Your task to perform on an android device: open app "McDonald's" (install if not already installed) Image 0: 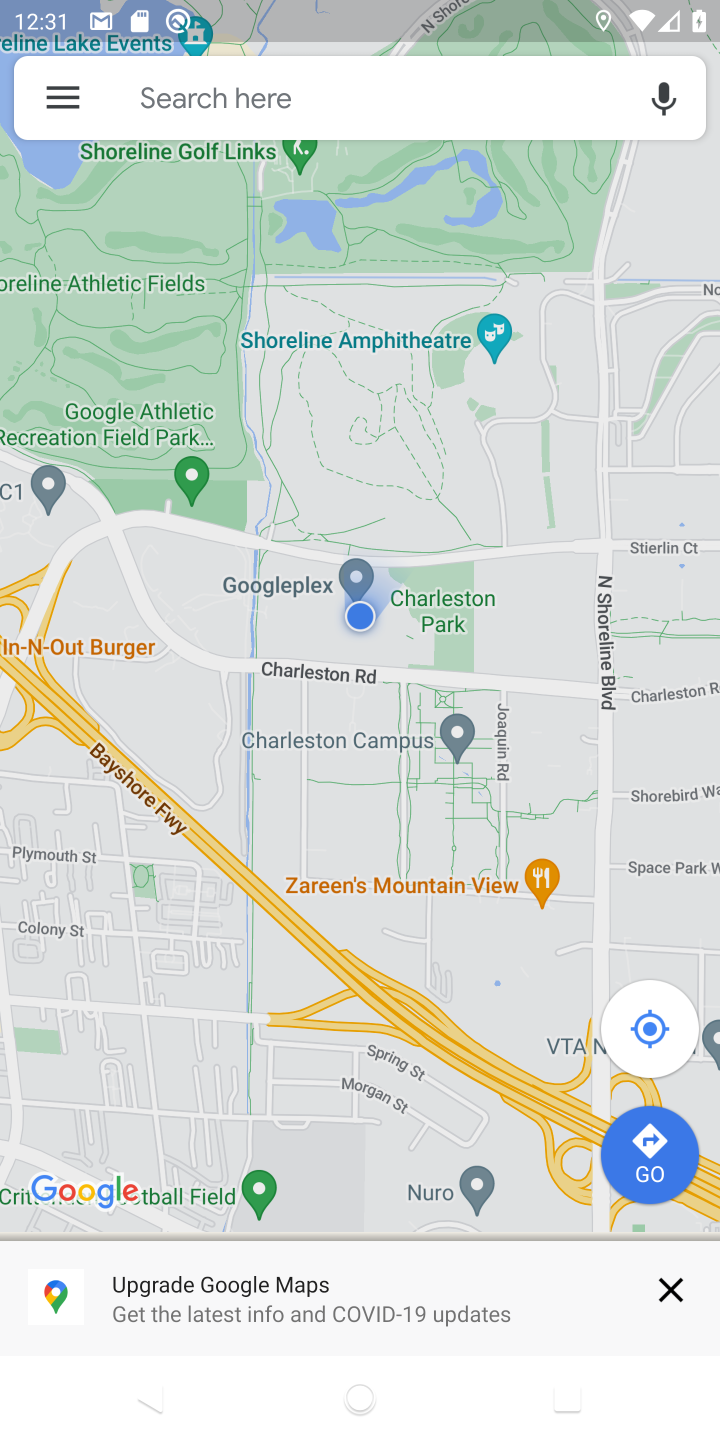
Step 0: press home button
Your task to perform on an android device: open app "McDonald's" (install if not already installed) Image 1: 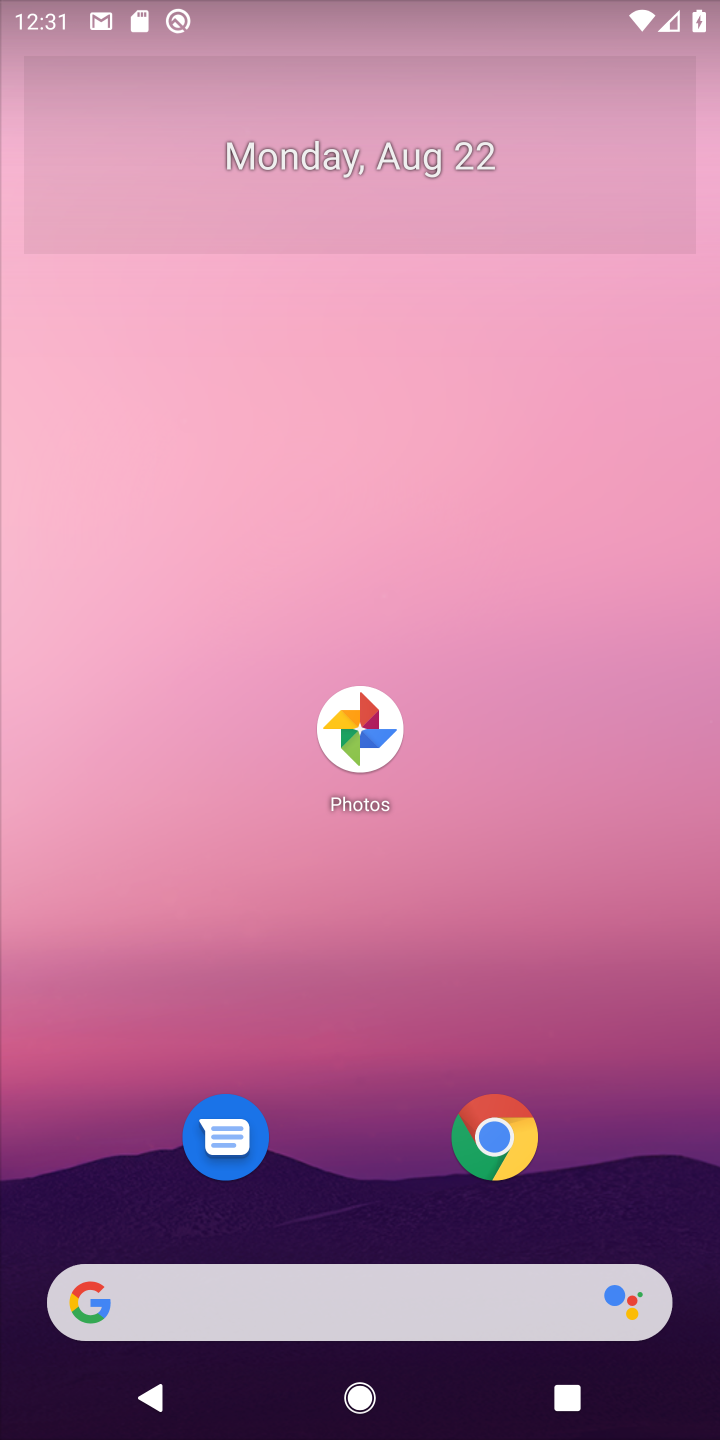
Step 1: drag from (627, 1201) to (575, 218)
Your task to perform on an android device: open app "McDonald's" (install if not already installed) Image 2: 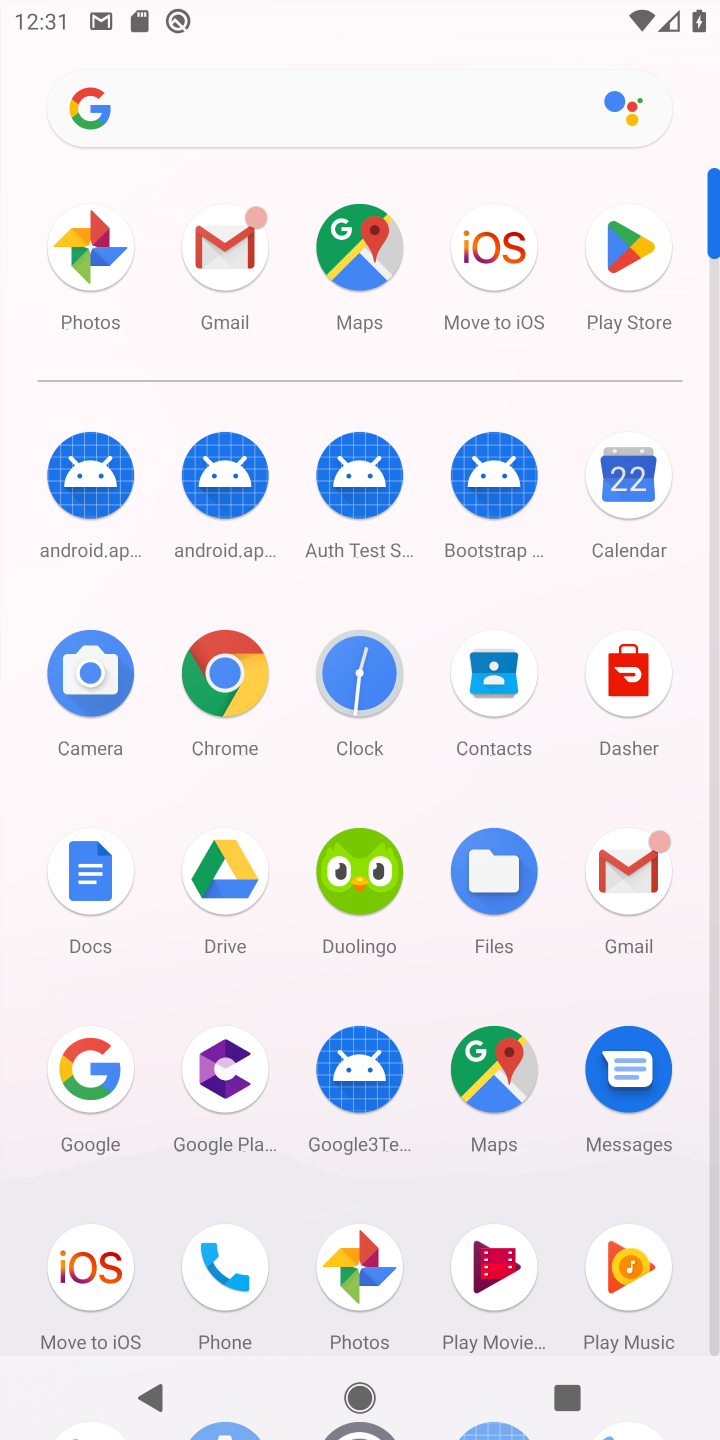
Step 2: click (419, 512)
Your task to perform on an android device: open app "McDonald's" (install if not already installed) Image 3: 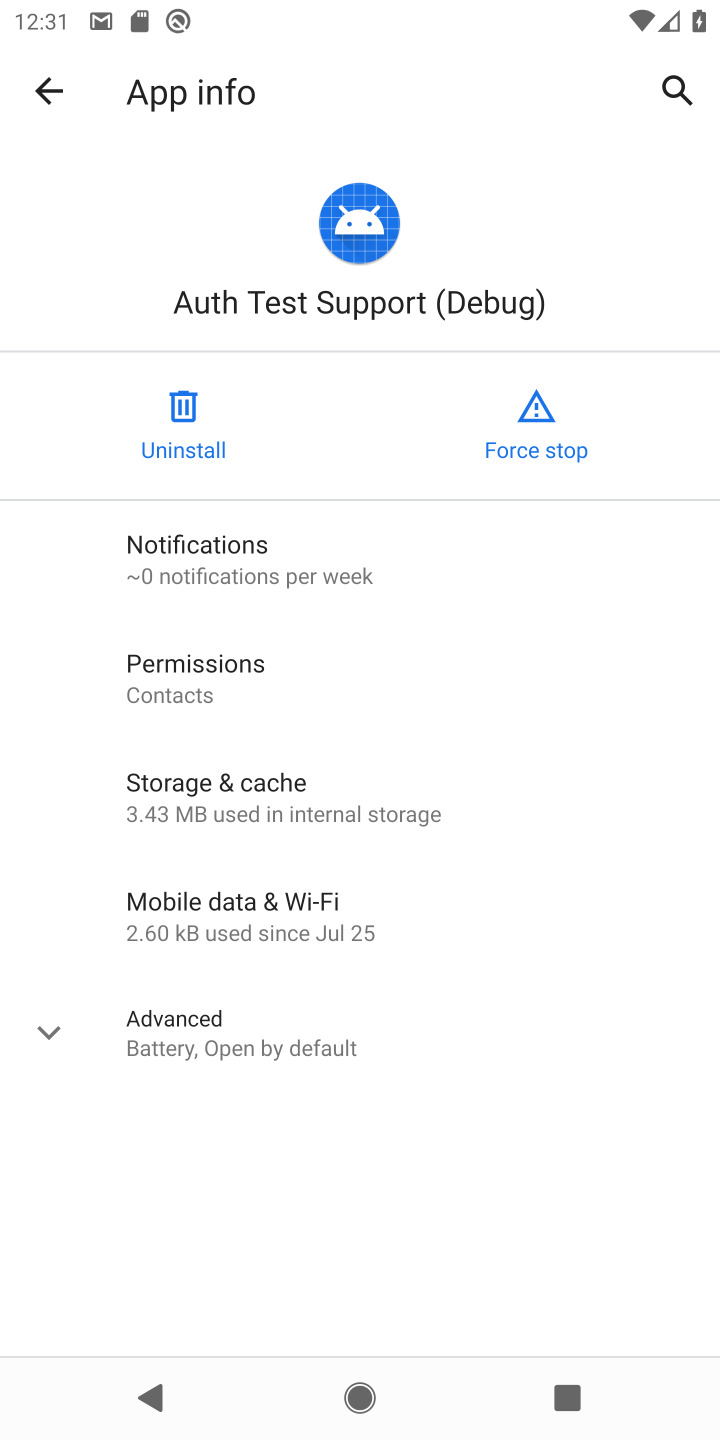
Step 3: drag from (288, 1223) to (308, 446)
Your task to perform on an android device: open app "McDonald's" (install if not already installed) Image 4: 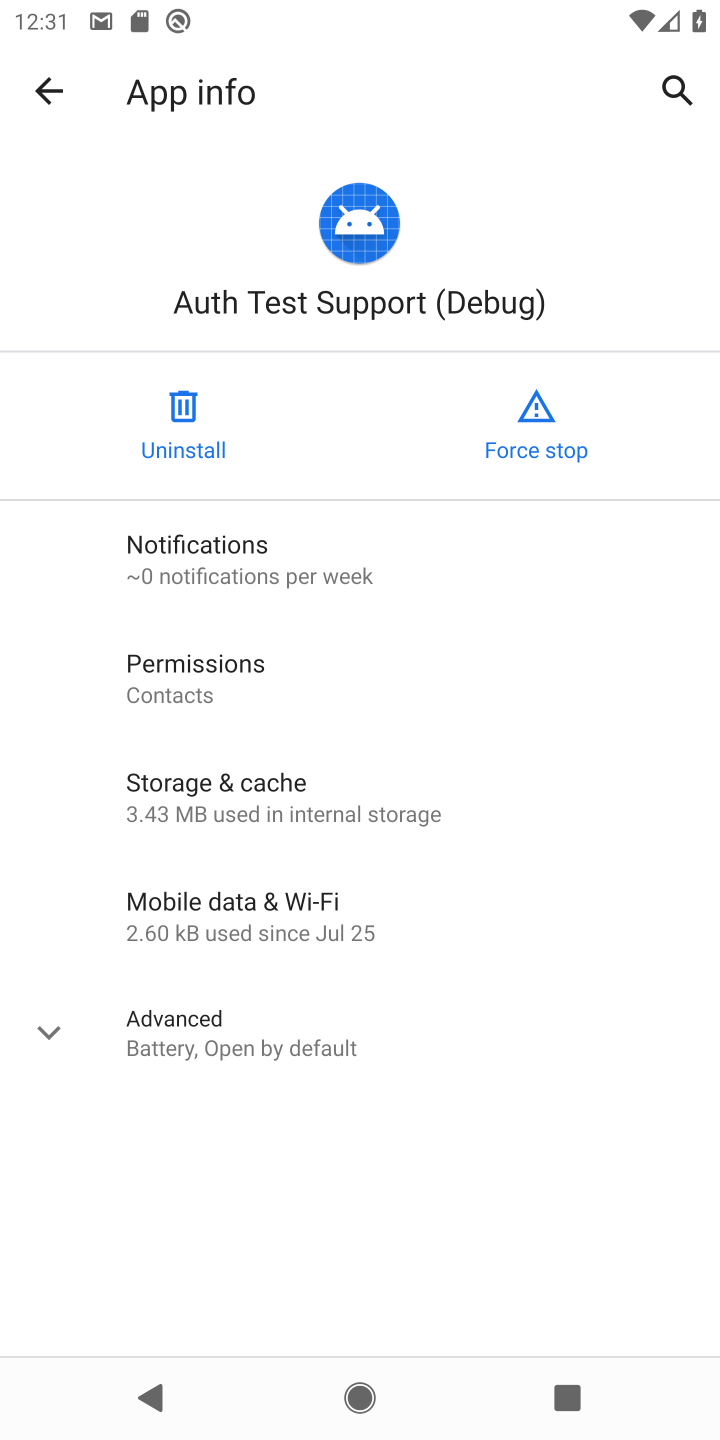
Step 4: press back button
Your task to perform on an android device: open app "McDonald's" (install if not already installed) Image 5: 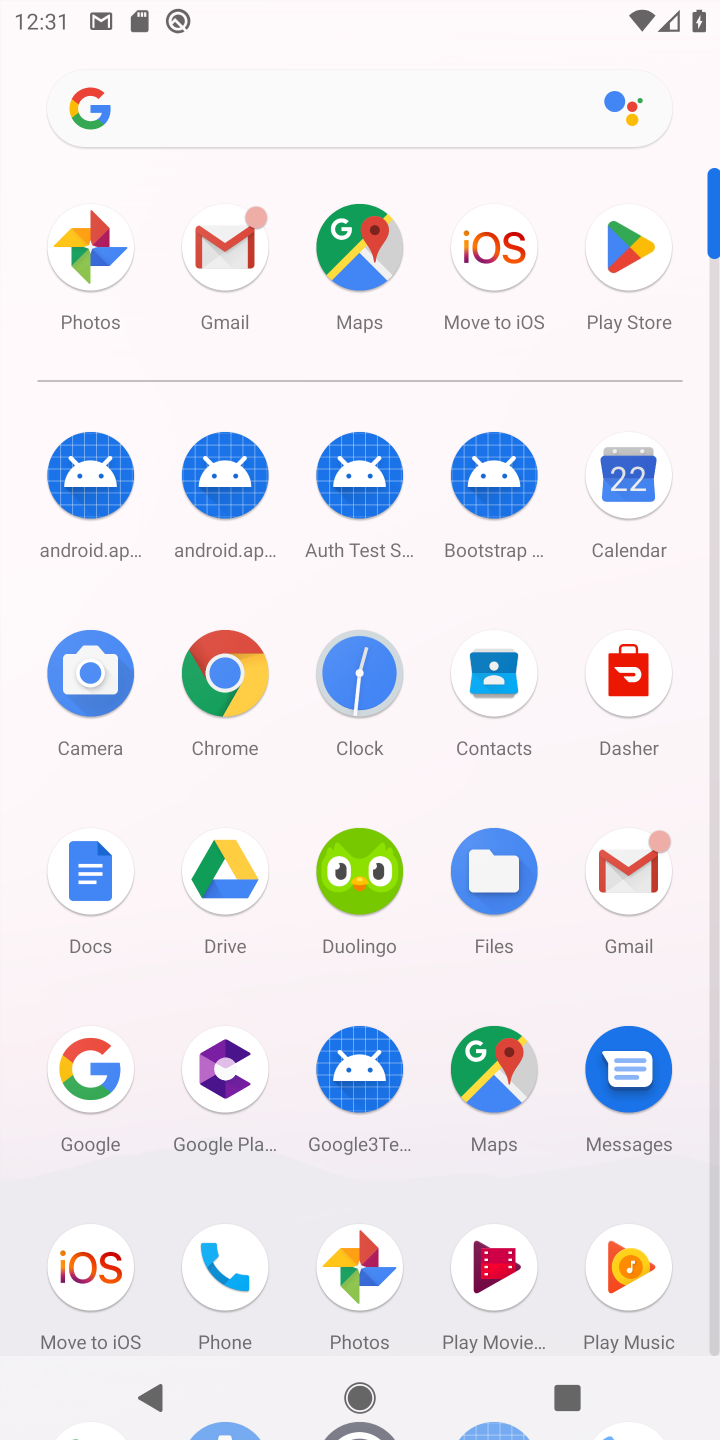
Step 5: drag from (280, 1196) to (268, 446)
Your task to perform on an android device: open app "McDonald's" (install if not already installed) Image 6: 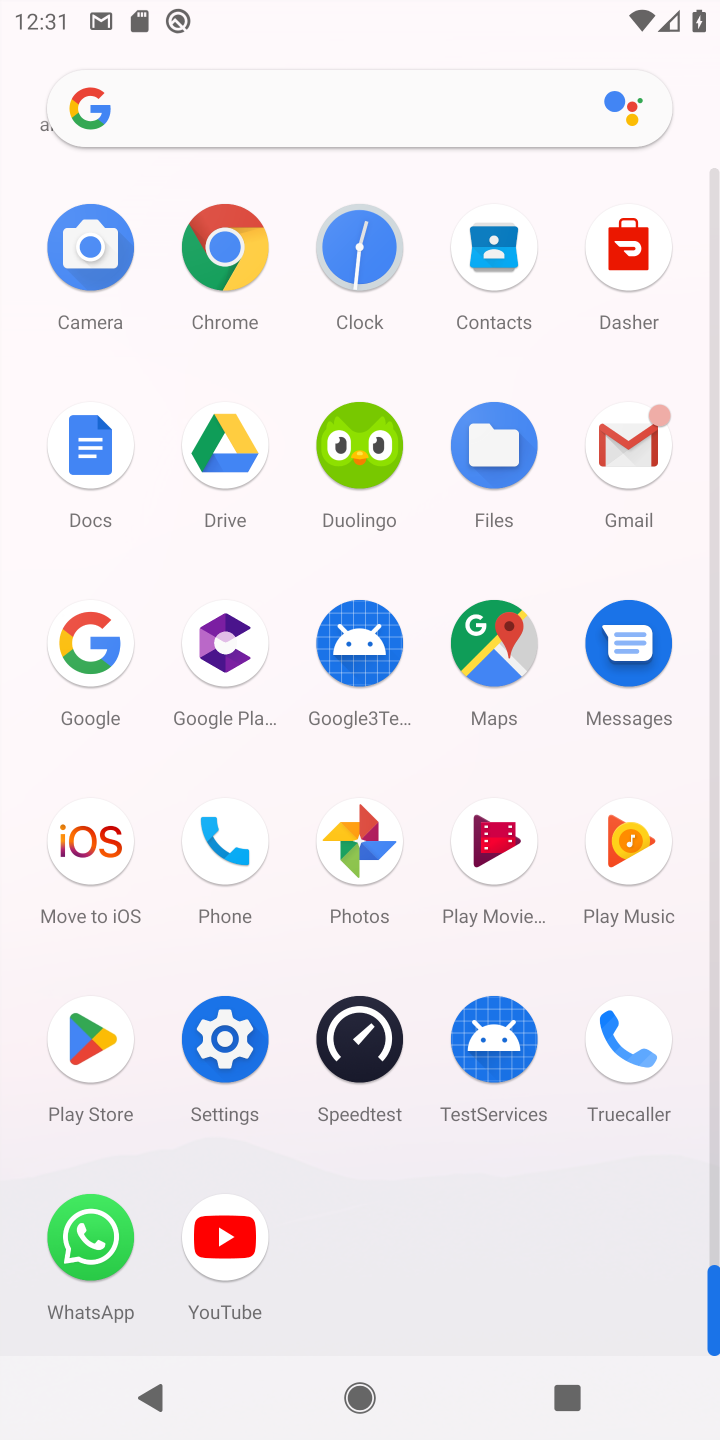
Step 6: click (93, 1038)
Your task to perform on an android device: open app "McDonald's" (install if not already installed) Image 7: 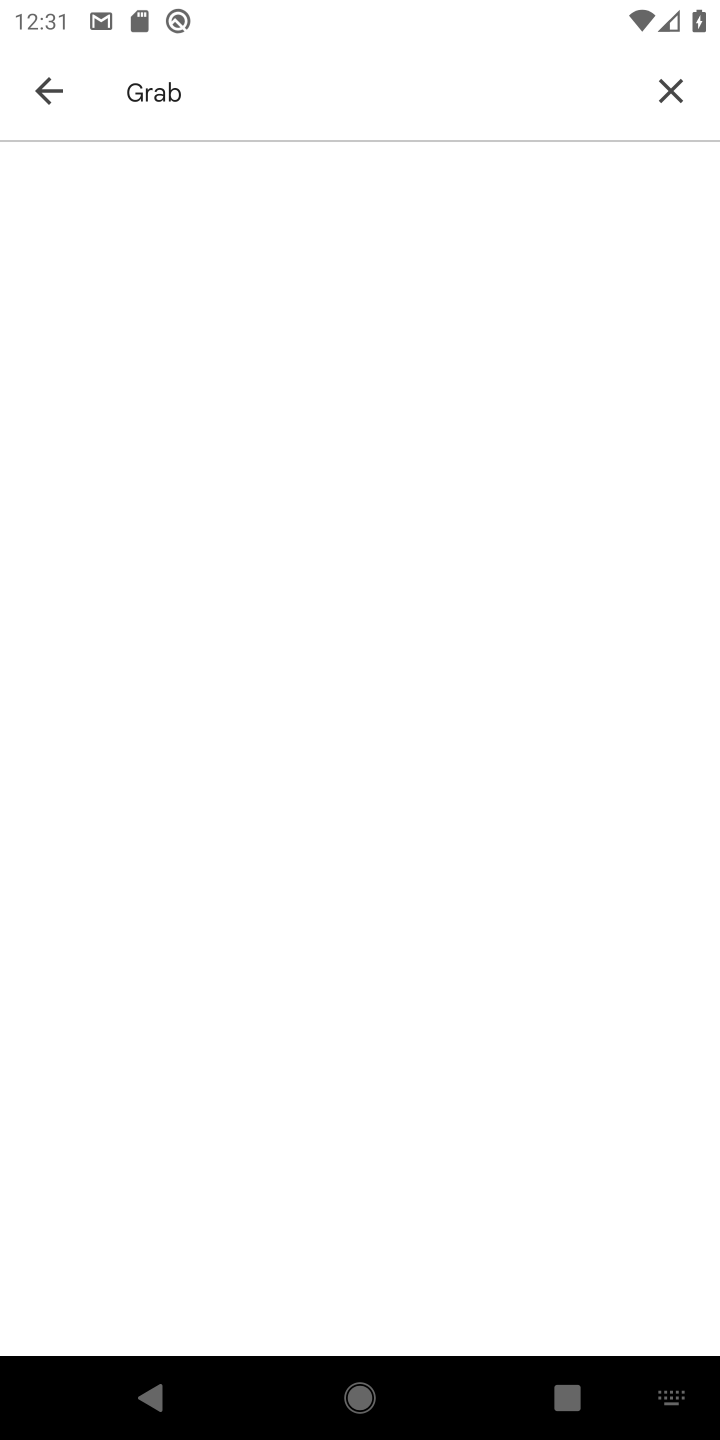
Step 7: click (670, 79)
Your task to perform on an android device: open app "McDonald's" (install if not already installed) Image 8: 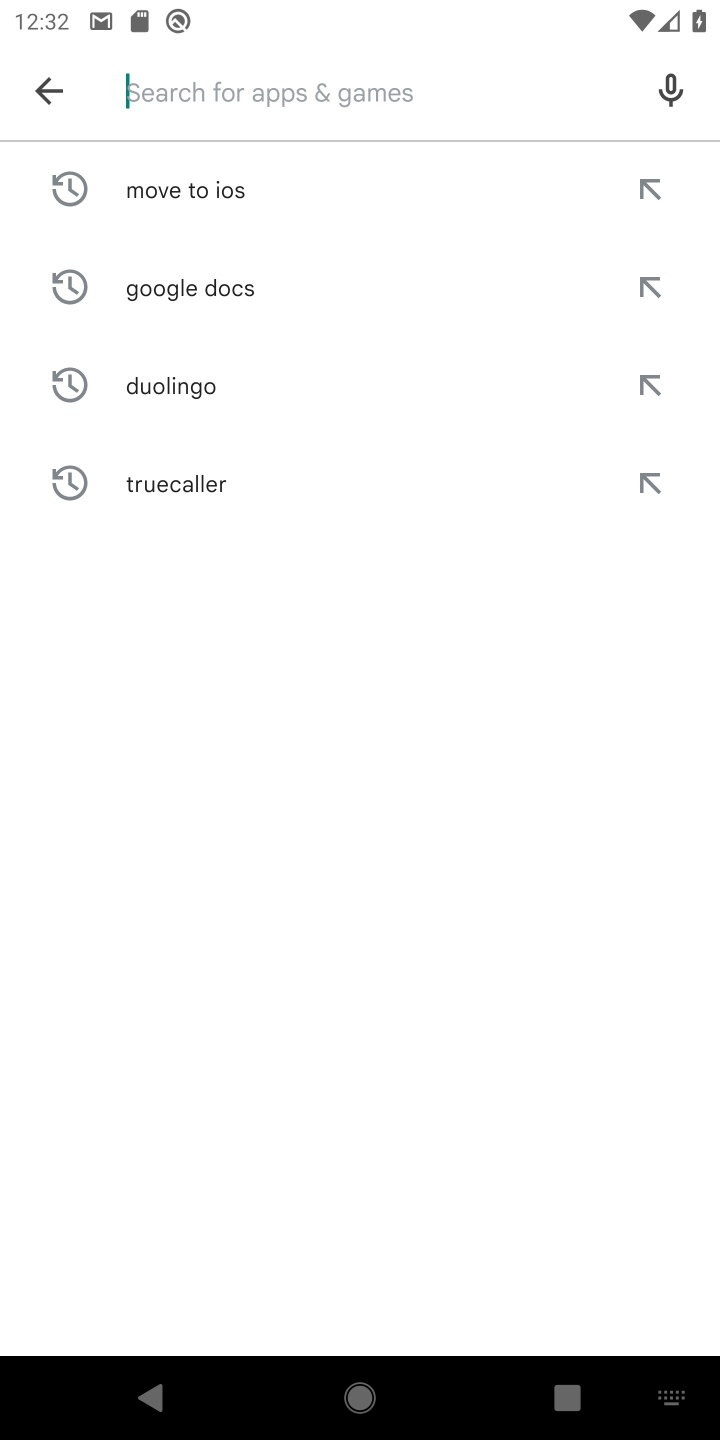
Step 8: type "McDonalds"
Your task to perform on an android device: open app "McDonald's" (install if not already installed) Image 9: 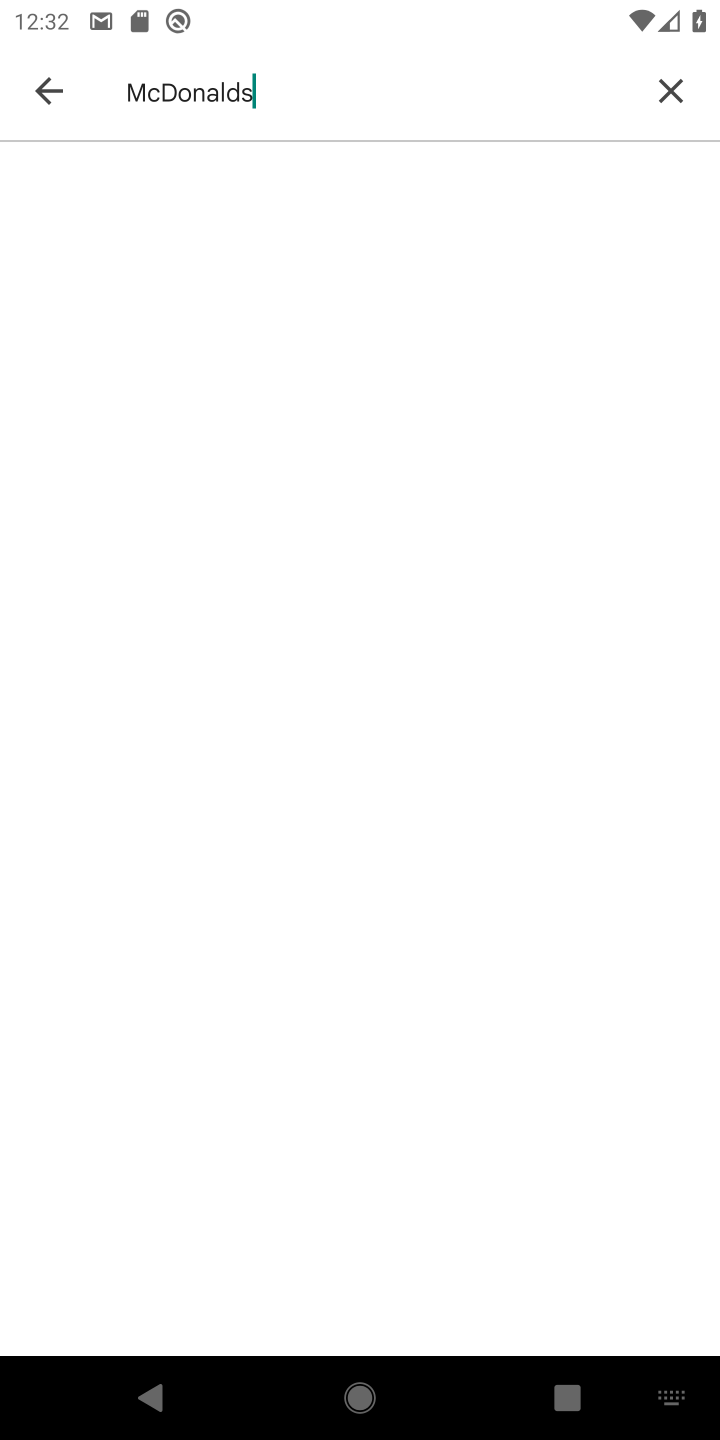
Step 9: task complete